Your task to perform on an android device: turn off location history Image 0: 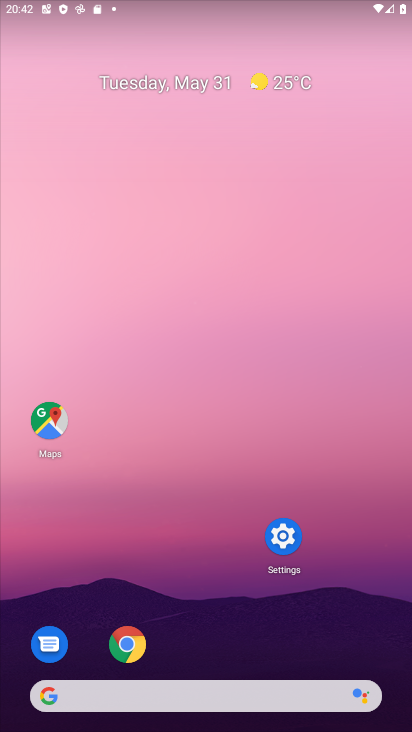
Step 0: drag from (267, 711) to (291, 339)
Your task to perform on an android device: turn off location history Image 1: 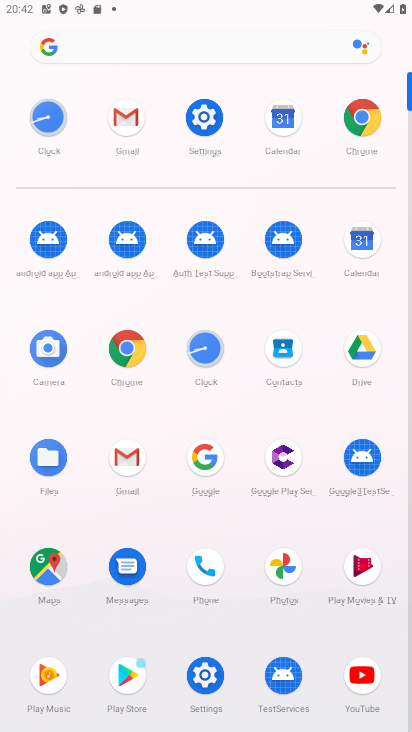
Step 1: click (205, 111)
Your task to perform on an android device: turn off location history Image 2: 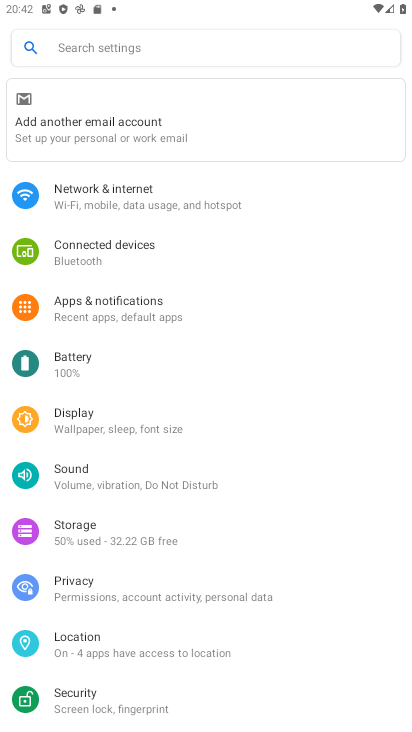
Step 2: click (89, 641)
Your task to perform on an android device: turn off location history Image 3: 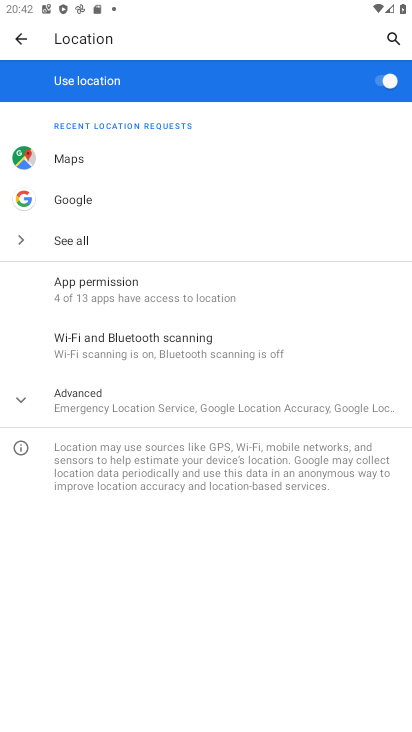
Step 3: click (11, 399)
Your task to perform on an android device: turn off location history Image 4: 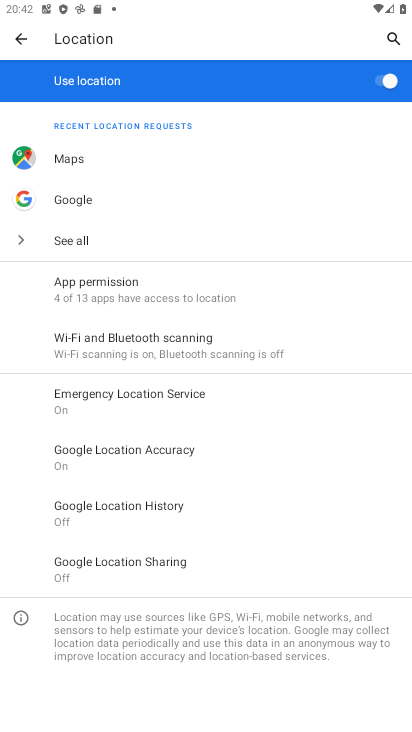
Step 4: click (113, 510)
Your task to perform on an android device: turn off location history Image 5: 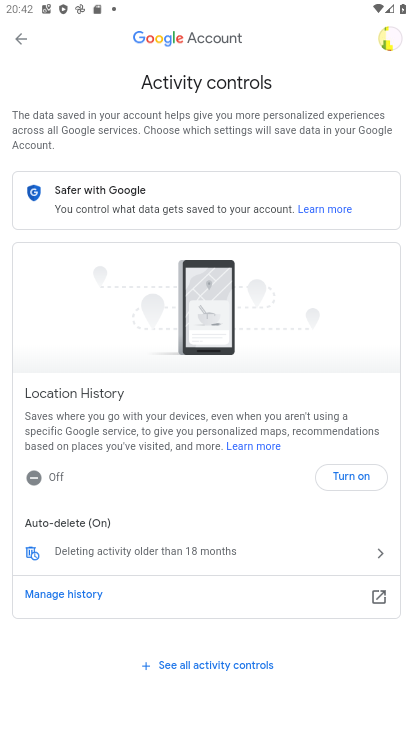
Step 5: task complete